Your task to perform on an android device: toggle pop-ups in chrome Image 0: 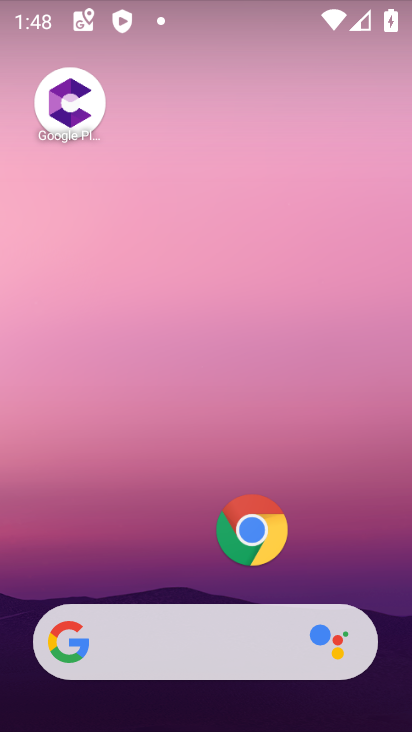
Step 0: click (271, 533)
Your task to perform on an android device: toggle pop-ups in chrome Image 1: 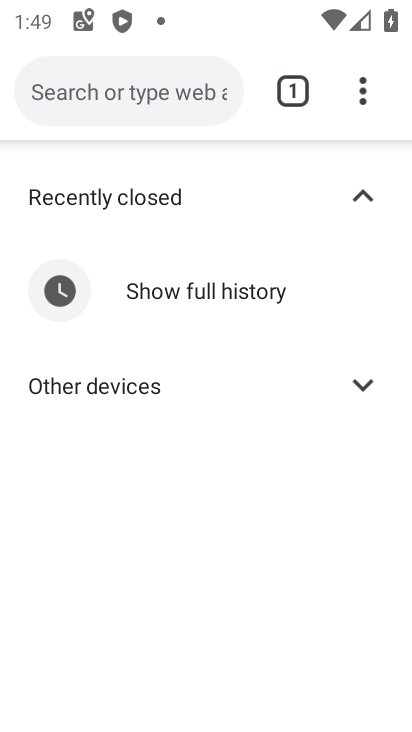
Step 1: click (210, 634)
Your task to perform on an android device: toggle pop-ups in chrome Image 2: 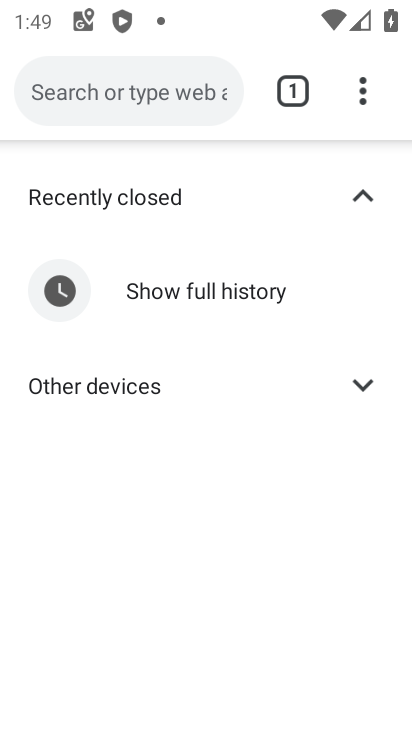
Step 2: drag from (354, 98) to (105, 555)
Your task to perform on an android device: toggle pop-ups in chrome Image 3: 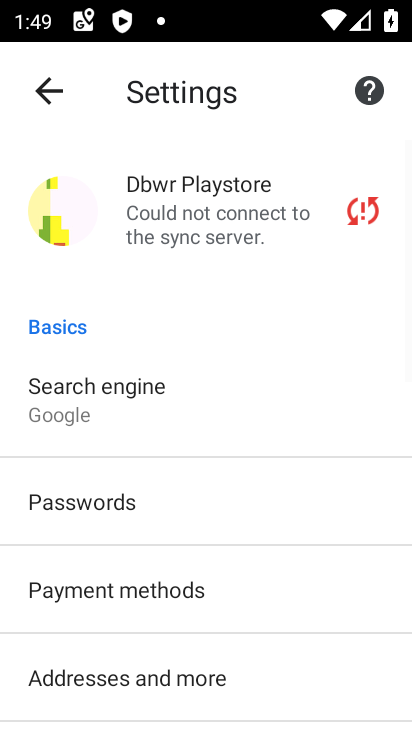
Step 3: drag from (201, 640) to (150, 162)
Your task to perform on an android device: toggle pop-ups in chrome Image 4: 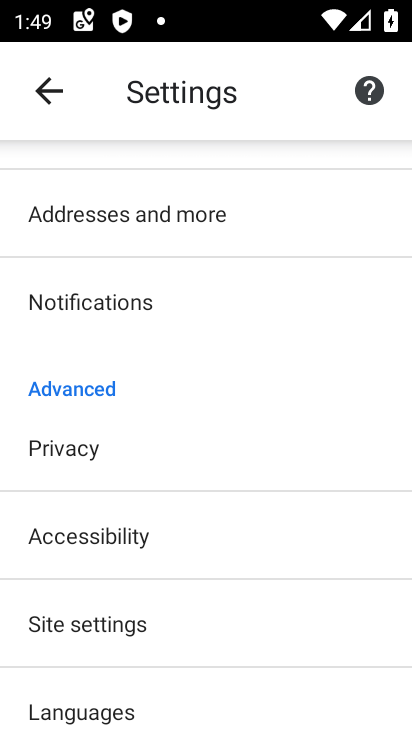
Step 4: drag from (270, 674) to (208, 140)
Your task to perform on an android device: toggle pop-ups in chrome Image 5: 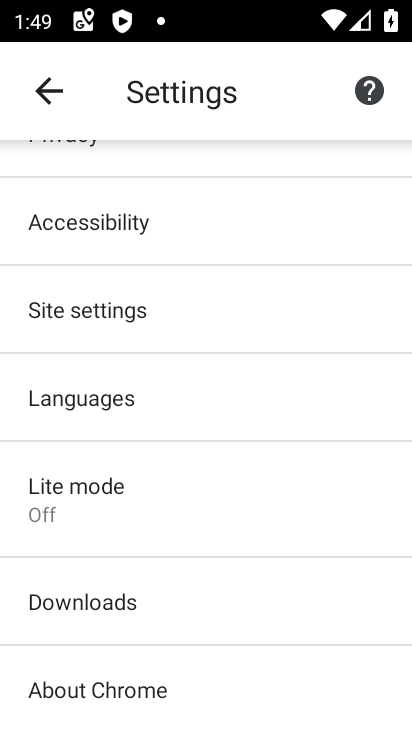
Step 5: click (83, 310)
Your task to perform on an android device: toggle pop-ups in chrome Image 6: 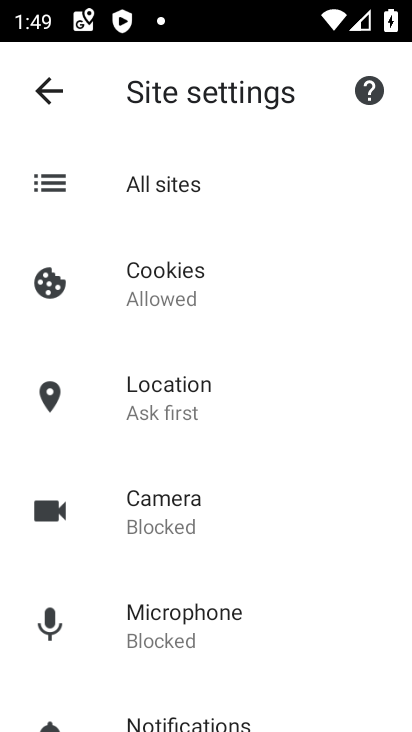
Step 6: drag from (299, 689) to (256, 67)
Your task to perform on an android device: toggle pop-ups in chrome Image 7: 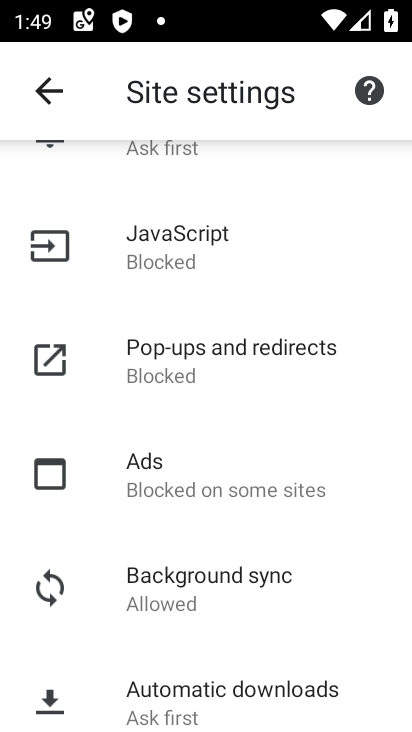
Step 7: click (206, 350)
Your task to perform on an android device: toggle pop-ups in chrome Image 8: 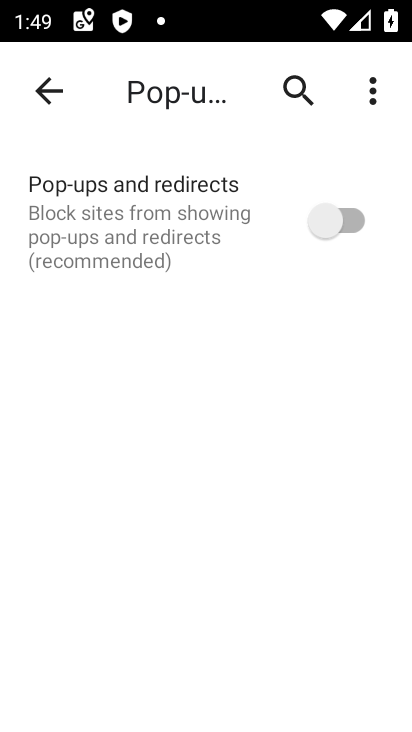
Step 8: click (330, 230)
Your task to perform on an android device: toggle pop-ups in chrome Image 9: 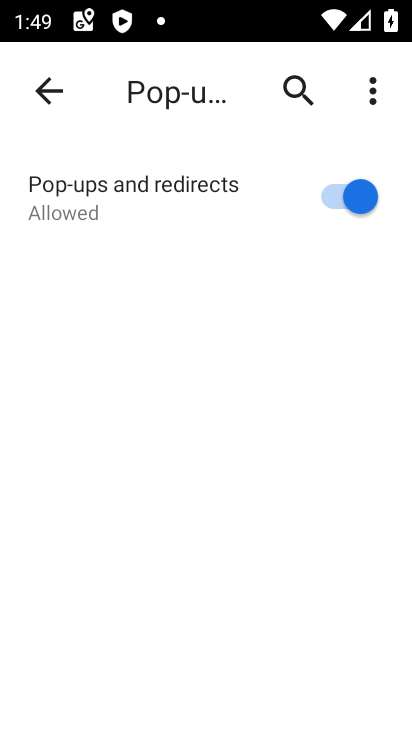
Step 9: task complete